Your task to perform on an android device: toggle notification dots Image 0: 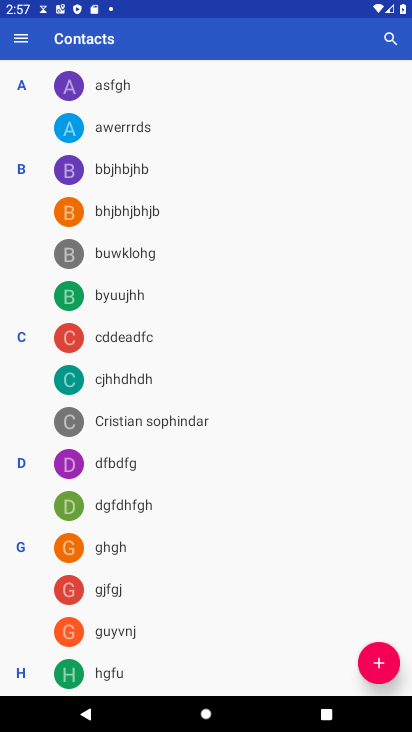
Step 0: press home button
Your task to perform on an android device: toggle notification dots Image 1: 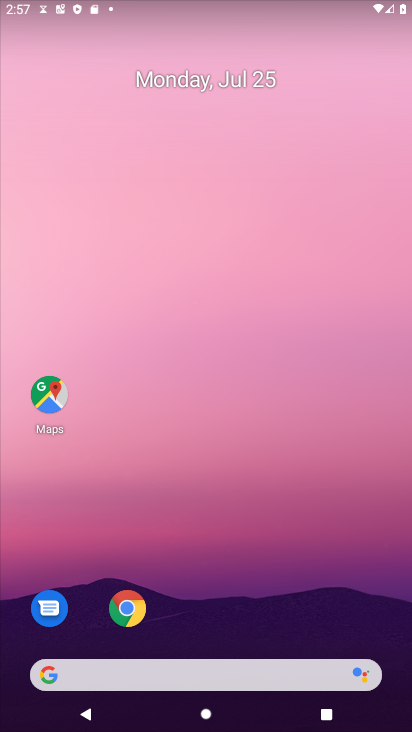
Step 1: drag from (226, 576) to (251, 181)
Your task to perform on an android device: toggle notification dots Image 2: 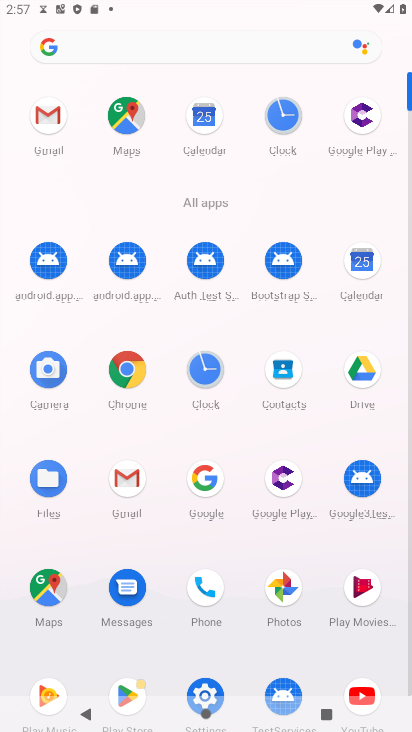
Step 2: click (209, 680)
Your task to perform on an android device: toggle notification dots Image 3: 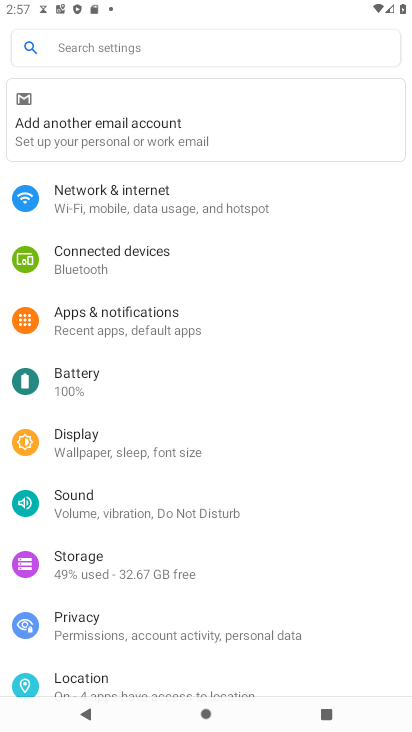
Step 3: click (150, 202)
Your task to perform on an android device: toggle notification dots Image 4: 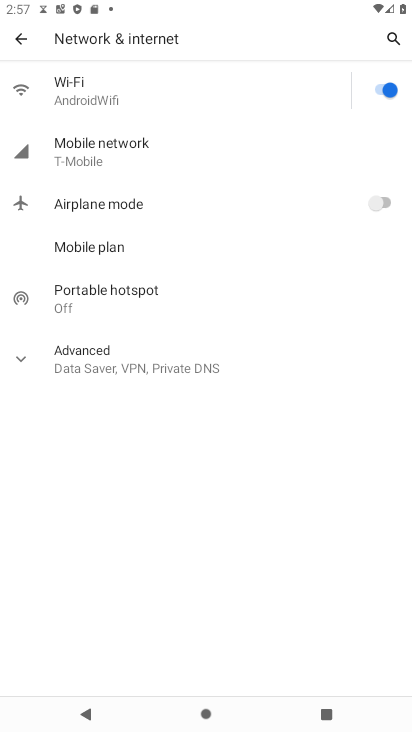
Step 4: click (20, 44)
Your task to perform on an android device: toggle notification dots Image 5: 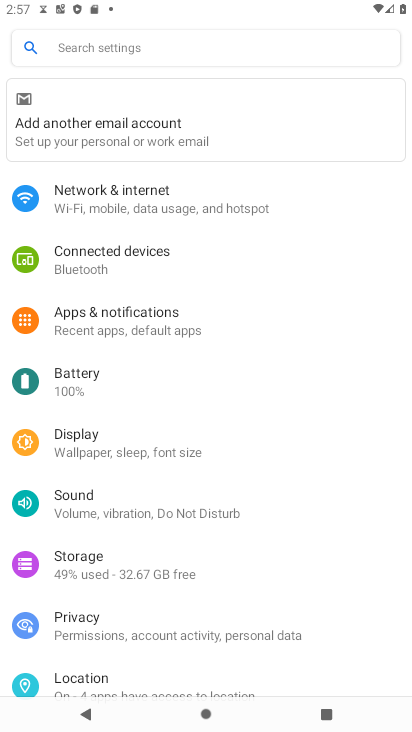
Step 5: click (166, 328)
Your task to perform on an android device: toggle notification dots Image 6: 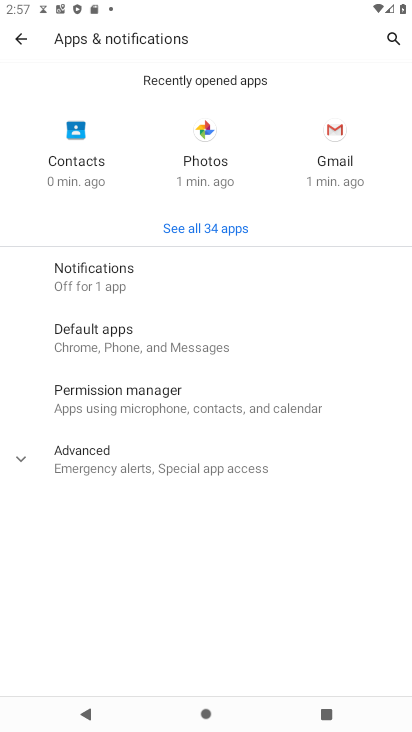
Step 6: click (108, 275)
Your task to perform on an android device: toggle notification dots Image 7: 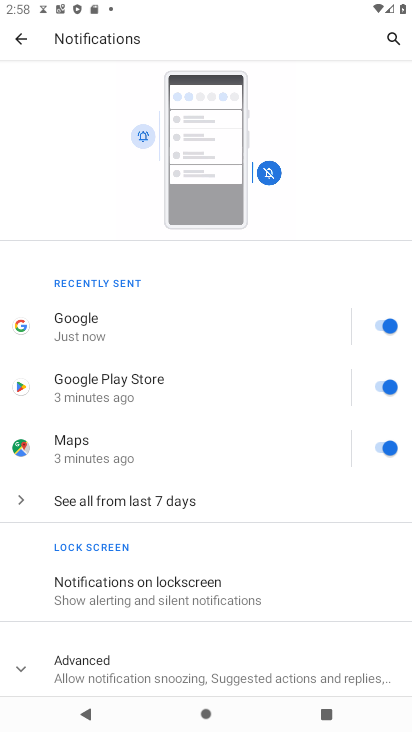
Step 7: click (107, 665)
Your task to perform on an android device: toggle notification dots Image 8: 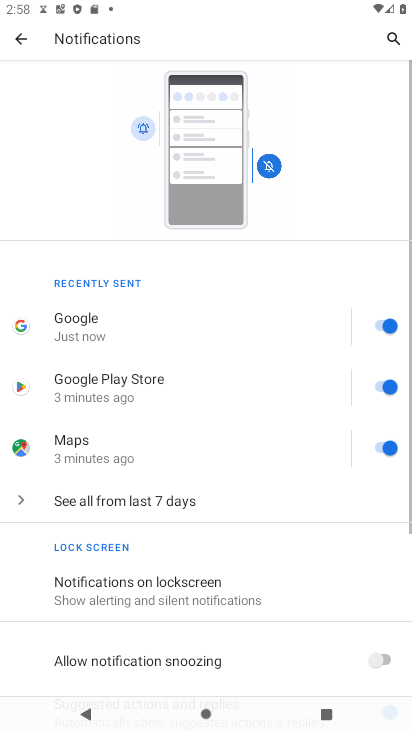
Step 8: drag from (159, 647) to (202, 310)
Your task to perform on an android device: toggle notification dots Image 9: 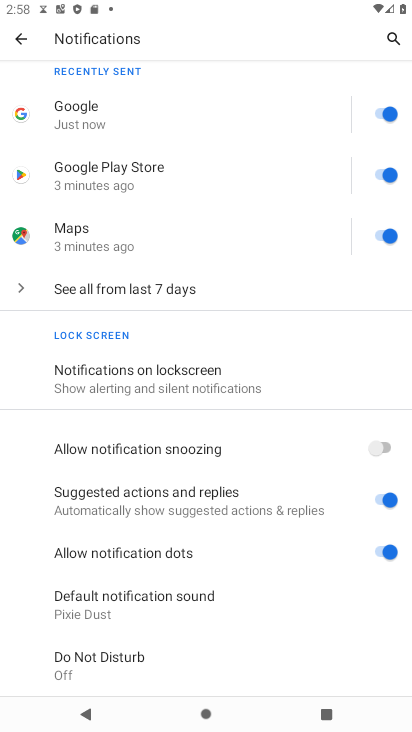
Step 9: click (368, 559)
Your task to perform on an android device: toggle notification dots Image 10: 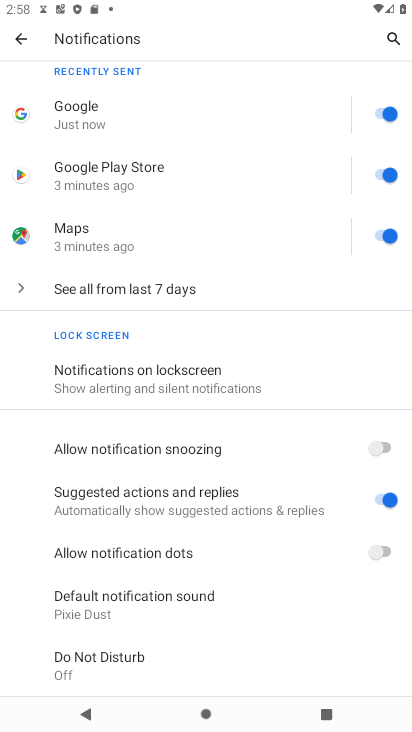
Step 10: task complete